Your task to perform on an android device: When is my next meeting? Image 0: 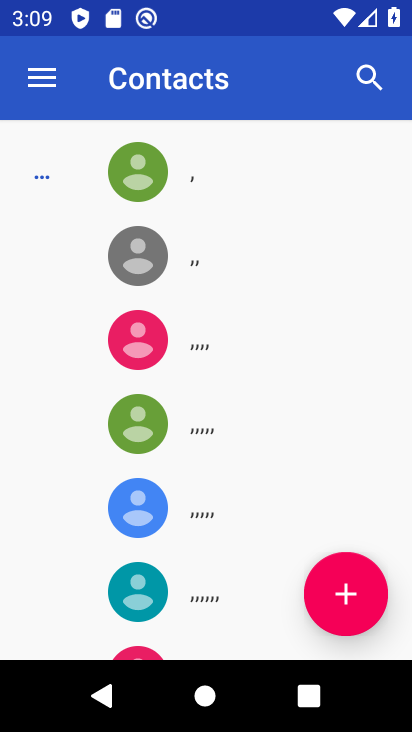
Step 0: press home button
Your task to perform on an android device: When is my next meeting? Image 1: 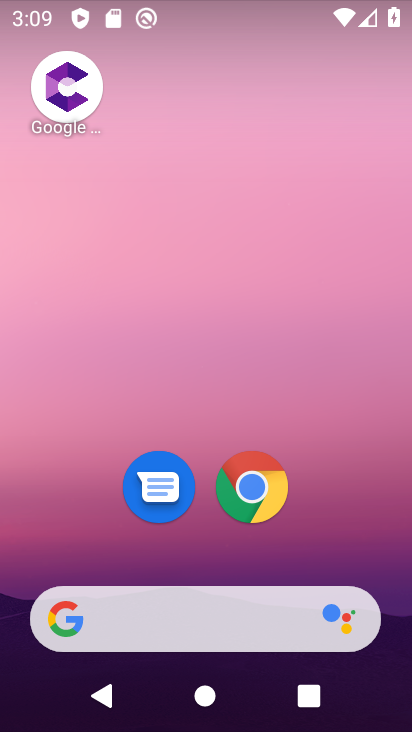
Step 1: drag from (243, 590) to (162, 124)
Your task to perform on an android device: When is my next meeting? Image 2: 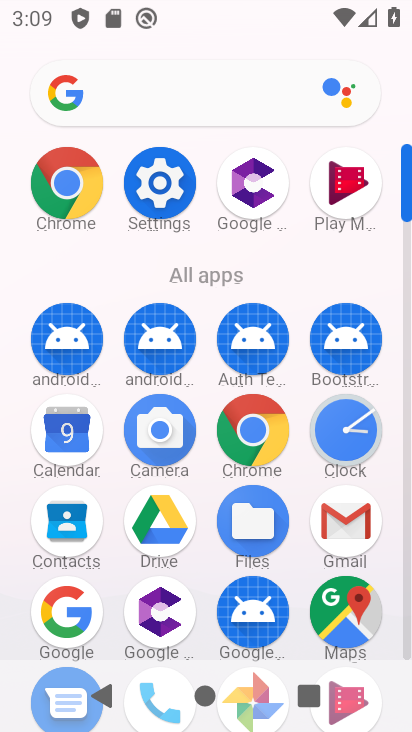
Step 2: click (58, 437)
Your task to perform on an android device: When is my next meeting? Image 3: 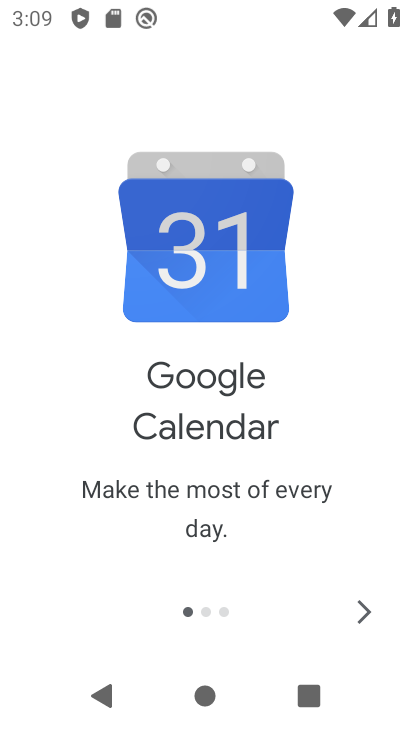
Step 3: click (375, 611)
Your task to perform on an android device: When is my next meeting? Image 4: 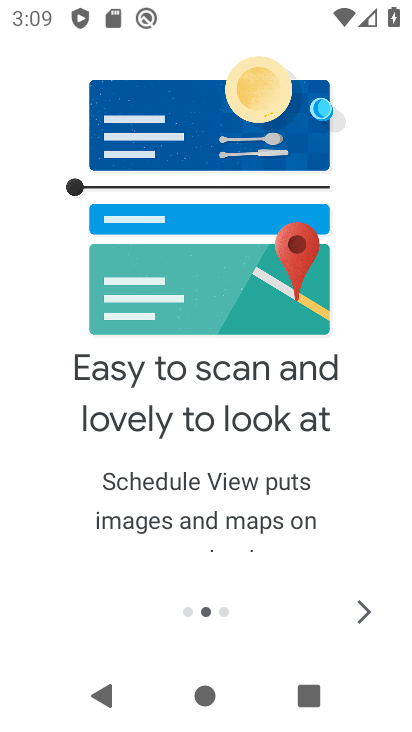
Step 4: click (375, 611)
Your task to perform on an android device: When is my next meeting? Image 5: 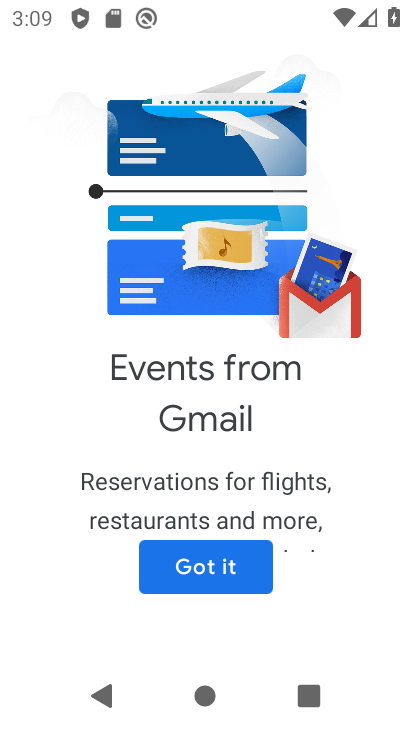
Step 5: click (227, 577)
Your task to perform on an android device: When is my next meeting? Image 6: 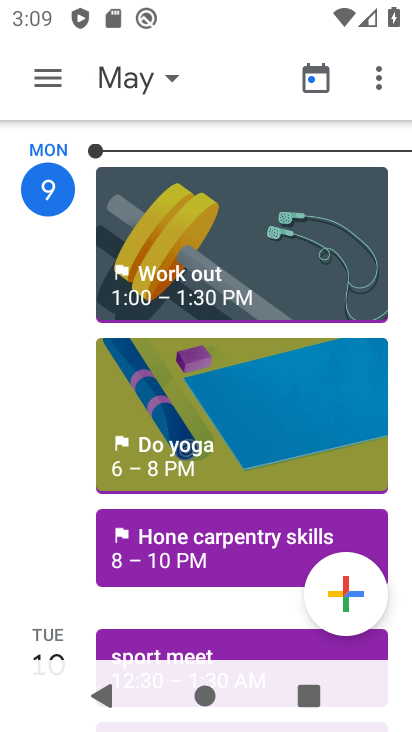
Step 6: click (161, 78)
Your task to perform on an android device: When is my next meeting? Image 7: 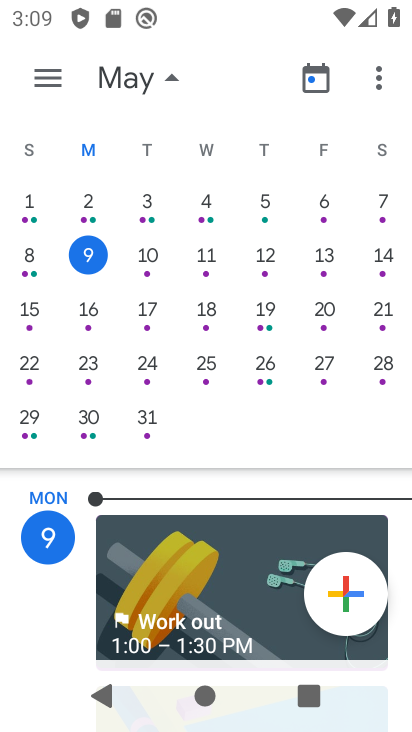
Step 7: task complete